Your task to perform on an android device: Open location settings Image 0: 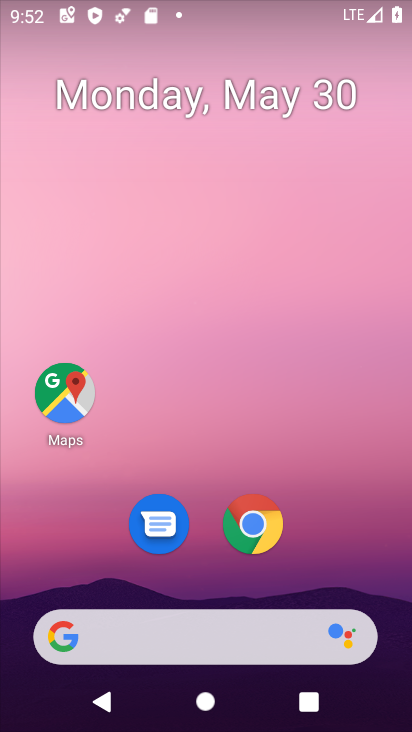
Step 0: drag from (276, 428) to (259, 2)
Your task to perform on an android device: Open location settings Image 1: 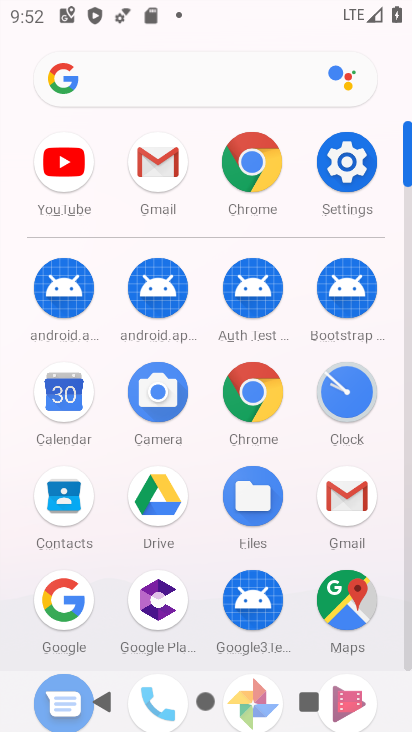
Step 1: click (341, 157)
Your task to perform on an android device: Open location settings Image 2: 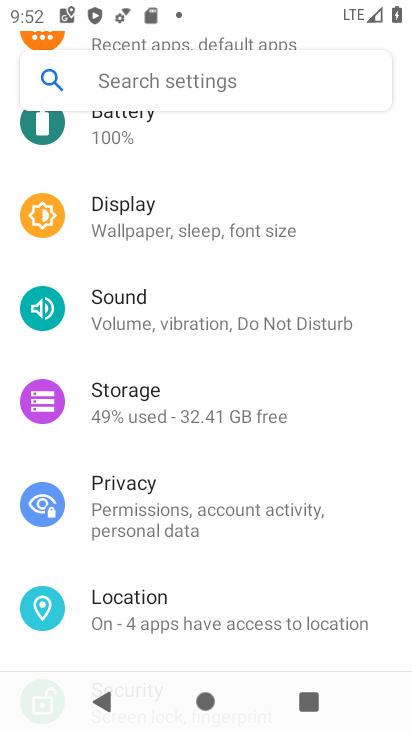
Step 2: click (236, 607)
Your task to perform on an android device: Open location settings Image 3: 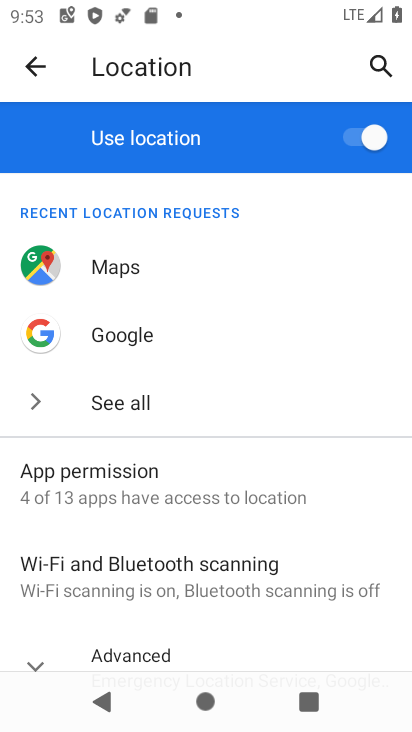
Step 3: task complete